Your task to perform on an android device: check battery use Image 0: 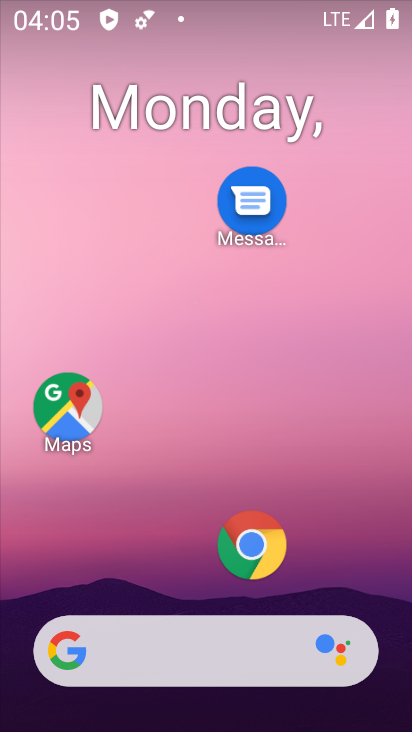
Step 0: drag from (157, 545) to (240, 105)
Your task to perform on an android device: check battery use Image 1: 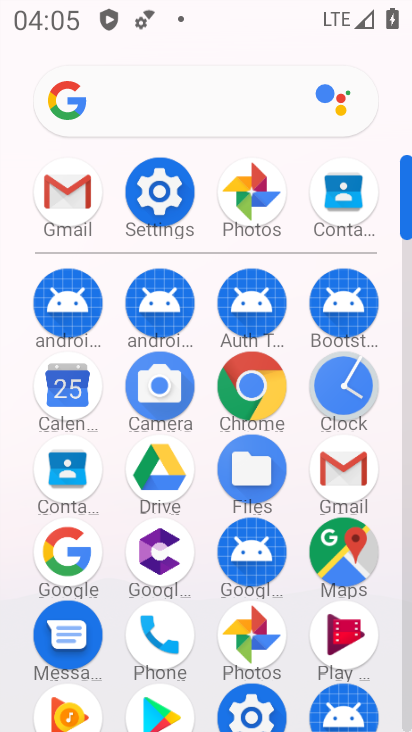
Step 1: click (162, 189)
Your task to perform on an android device: check battery use Image 2: 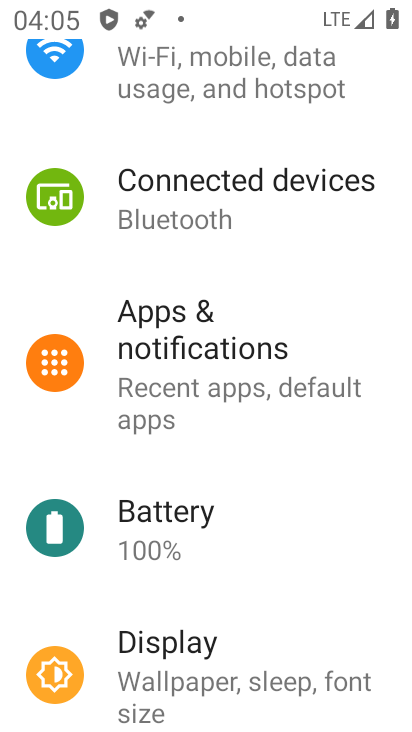
Step 2: click (159, 515)
Your task to perform on an android device: check battery use Image 3: 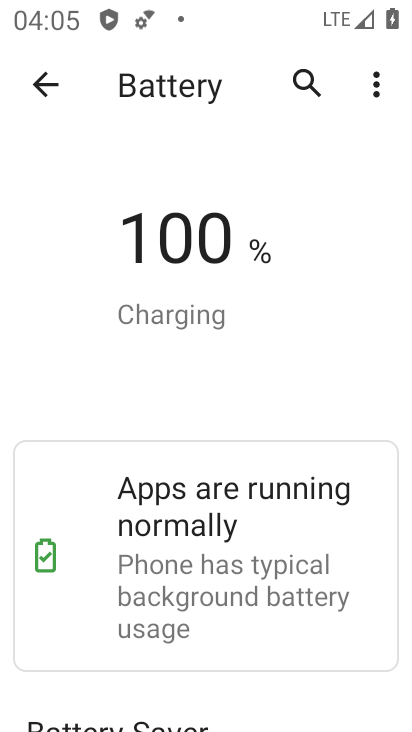
Step 3: click (373, 87)
Your task to perform on an android device: check battery use Image 4: 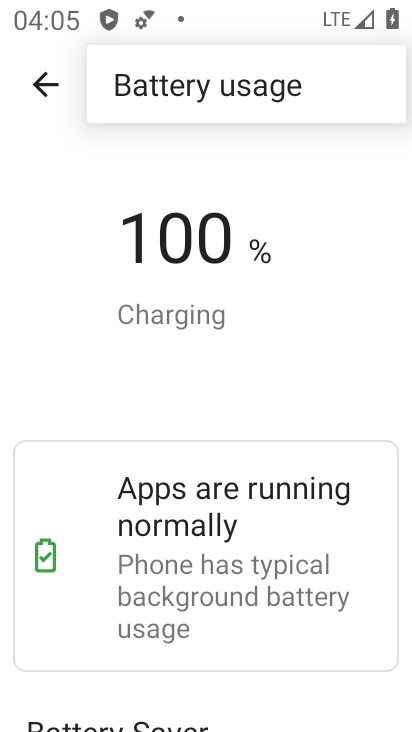
Step 4: click (257, 80)
Your task to perform on an android device: check battery use Image 5: 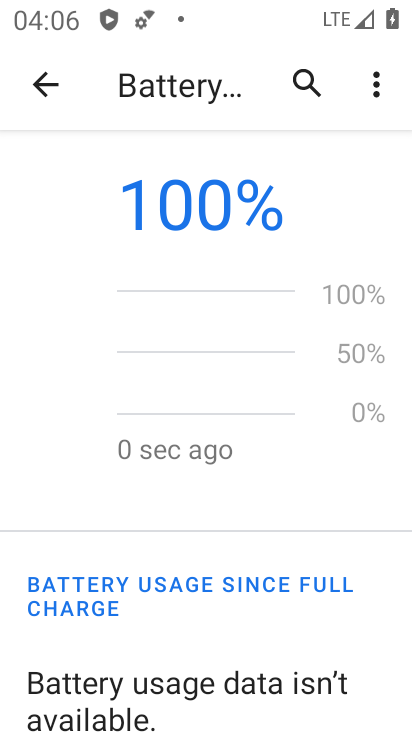
Step 5: task complete